Your task to perform on an android device: change the clock display to digital Image 0: 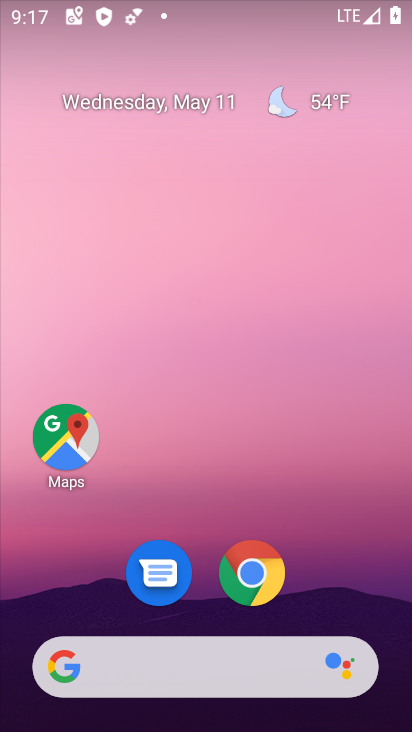
Step 0: drag from (147, 617) to (192, 0)
Your task to perform on an android device: change the clock display to digital Image 1: 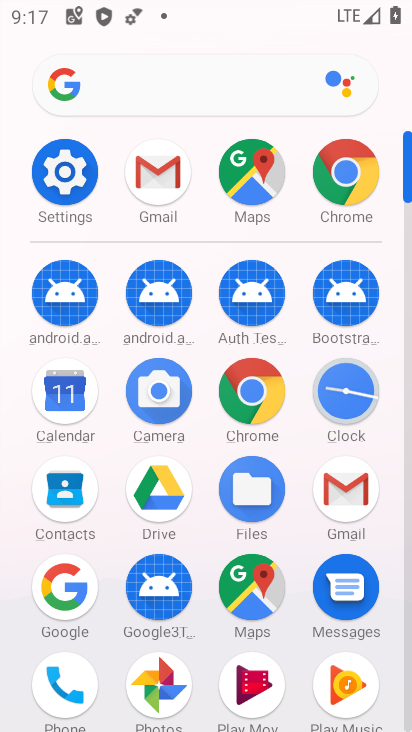
Step 1: click (330, 406)
Your task to perform on an android device: change the clock display to digital Image 2: 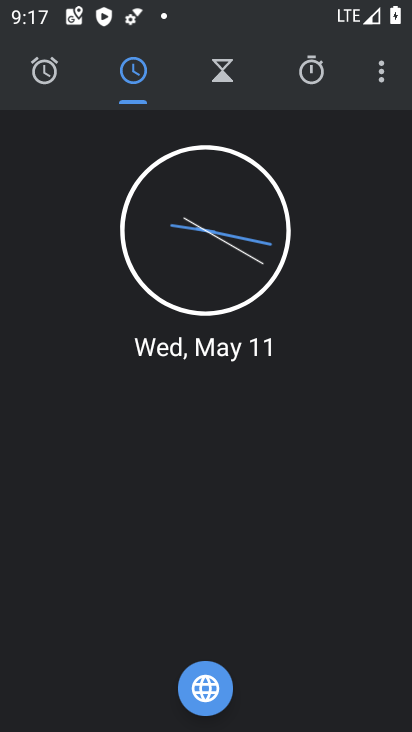
Step 2: click (377, 71)
Your task to perform on an android device: change the clock display to digital Image 3: 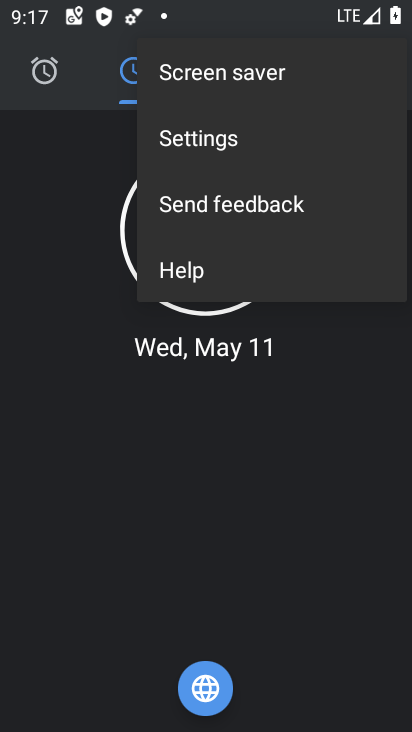
Step 3: click (258, 152)
Your task to perform on an android device: change the clock display to digital Image 4: 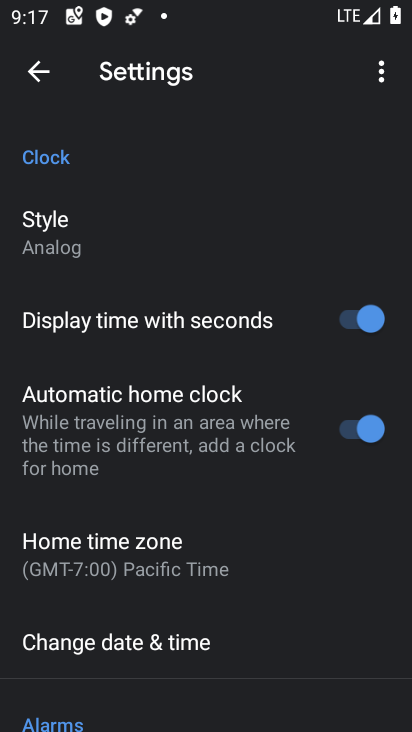
Step 4: click (74, 242)
Your task to perform on an android device: change the clock display to digital Image 5: 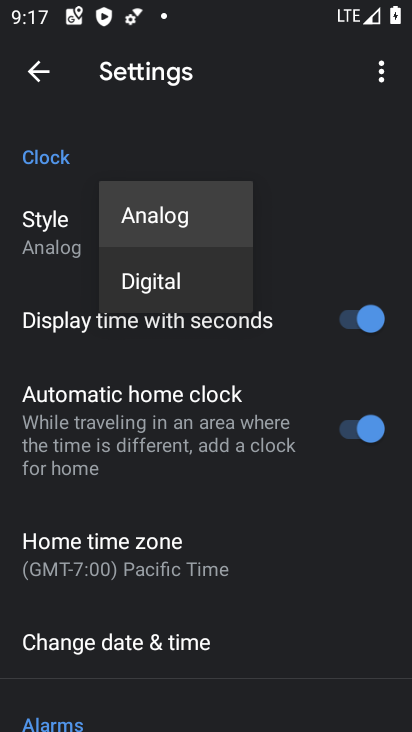
Step 5: click (297, 95)
Your task to perform on an android device: change the clock display to digital Image 6: 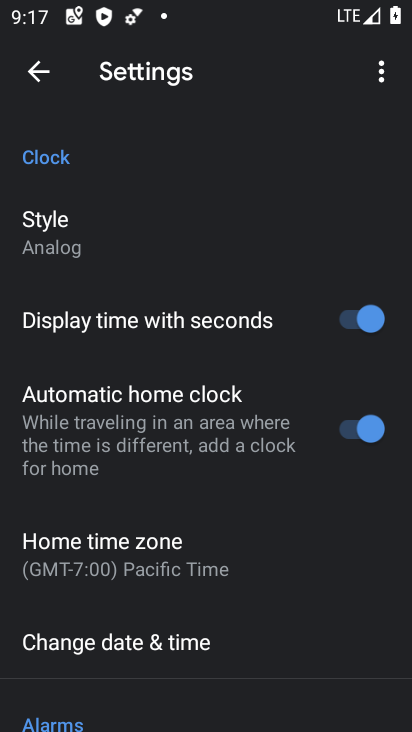
Step 6: drag from (324, 648) to (372, 39)
Your task to perform on an android device: change the clock display to digital Image 7: 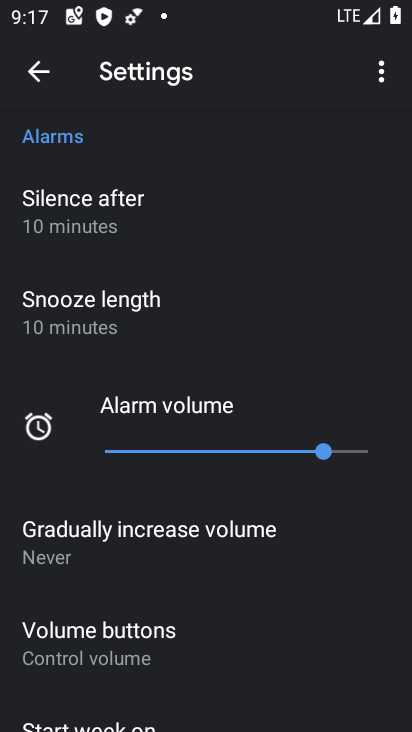
Step 7: drag from (190, 610) to (258, 5)
Your task to perform on an android device: change the clock display to digital Image 8: 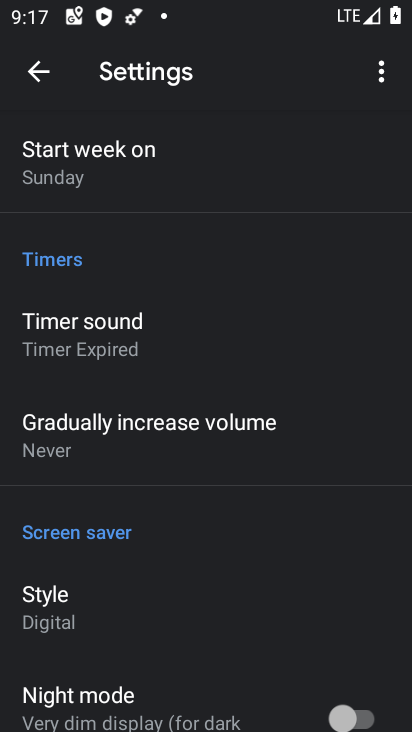
Step 8: drag from (273, 176) to (244, 663)
Your task to perform on an android device: change the clock display to digital Image 9: 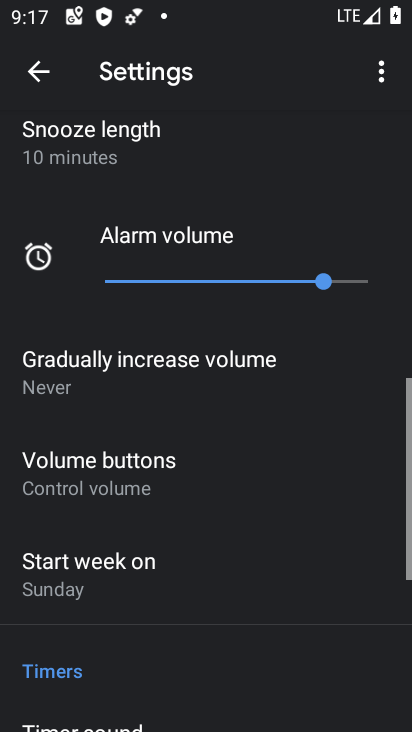
Step 9: drag from (200, 214) to (222, 665)
Your task to perform on an android device: change the clock display to digital Image 10: 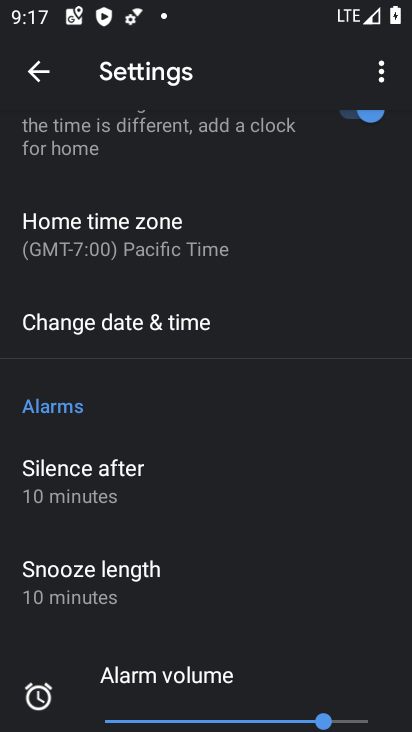
Step 10: drag from (221, 173) to (234, 659)
Your task to perform on an android device: change the clock display to digital Image 11: 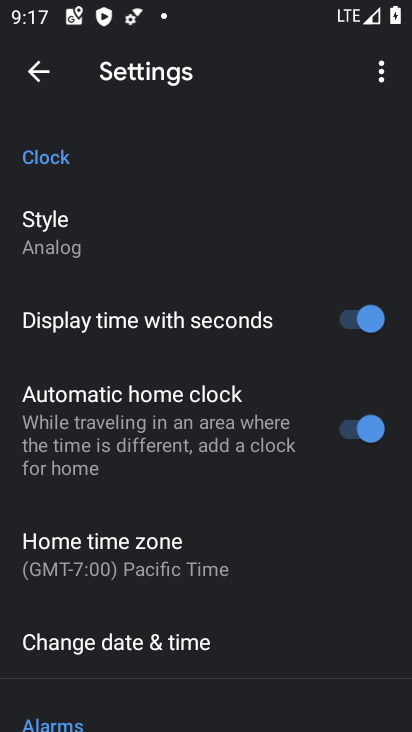
Step 11: click (79, 217)
Your task to perform on an android device: change the clock display to digital Image 12: 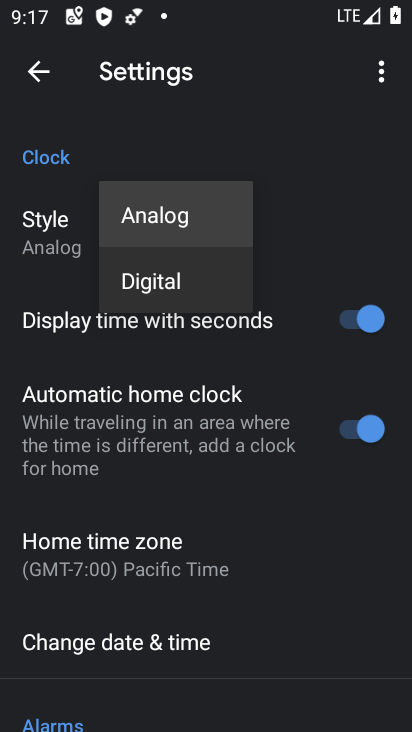
Step 12: click (141, 285)
Your task to perform on an android device: change the clock display to digital Image 13: 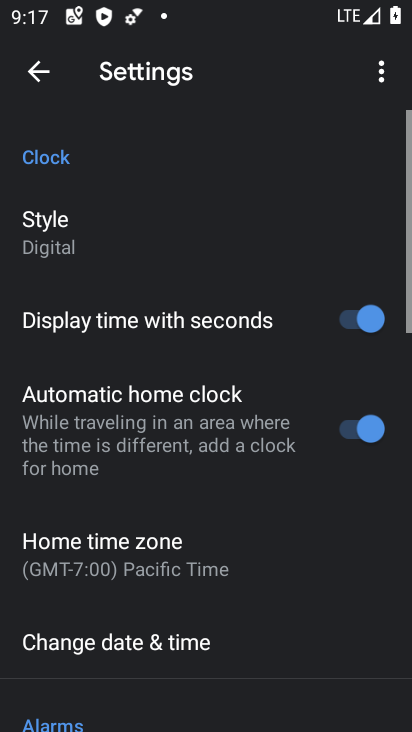
Step 13: task complete